Your task to perform on an android device: Open wifi settings Image 0: 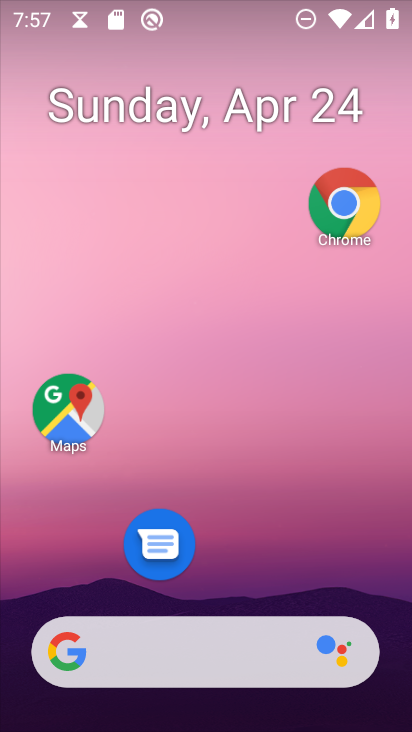
Step 0: drag from (213, 609) to (336, 100)
Your task to perform on an android device: Open wifi settings Image 1: 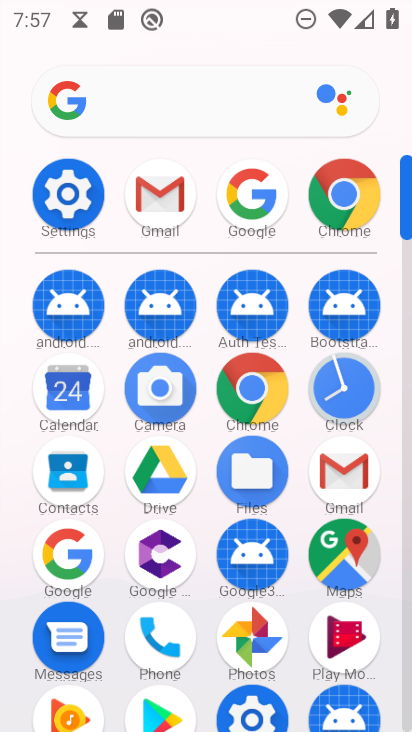
Step 1: click (69, 208)
Your task to perform on an android device: Open wifi settings Image 2: 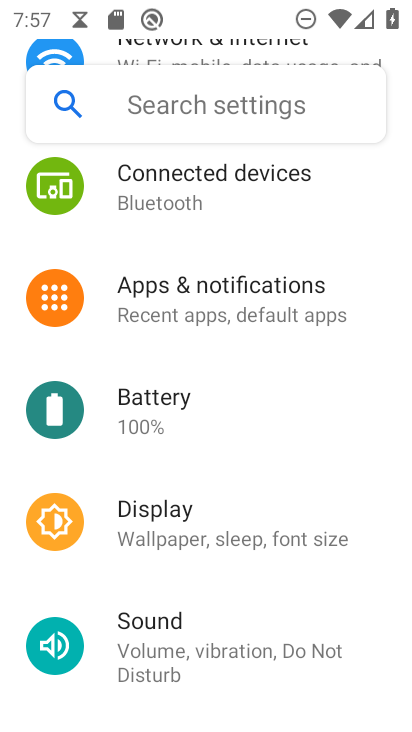
Step 2: drag from (317, 218) to (170, 693)
Your task to perform on an android device: Open wifi settings Image 3: 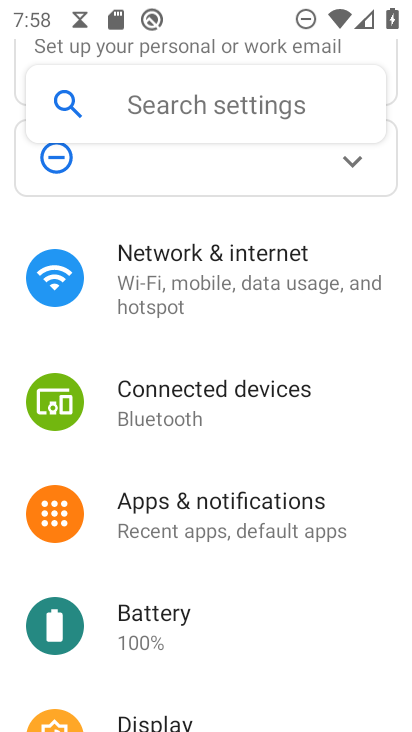
Step 3: click (224, 273)
Your task to perform on an android device: Open wifi settings Image 4: 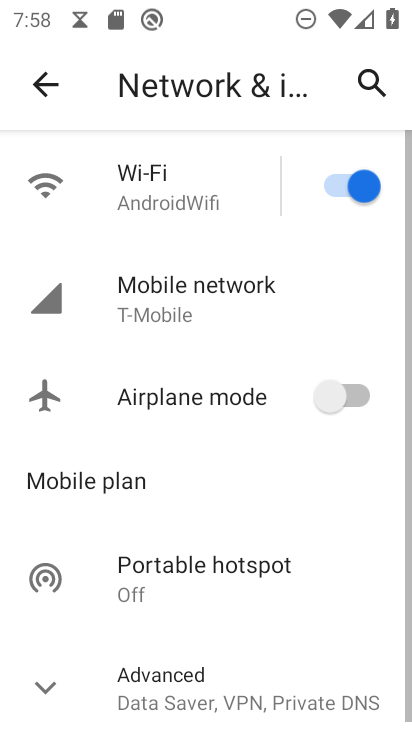
Step 4: click (154, 204)
Your task to perform on an android device: Open wifi settings Image 5: 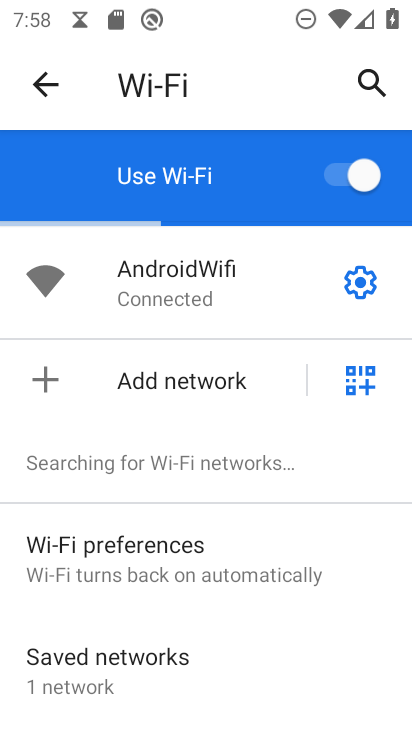
Step 5: task complete